Your task to perform on an android device: Open the map Image 0: 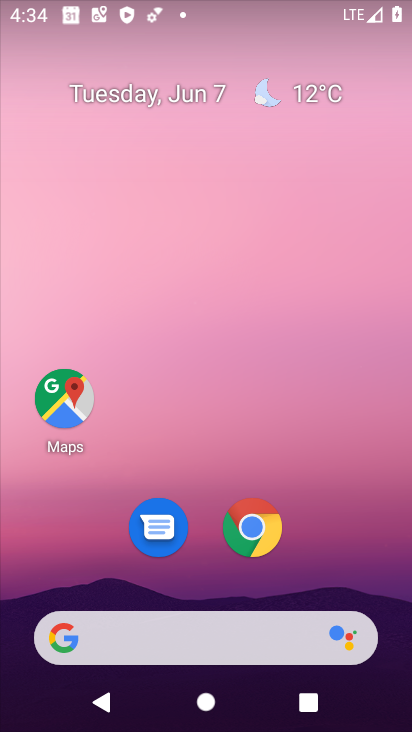
Step 0: click (62, 399)
Your task to perform on an android device: Open the map Image 1: 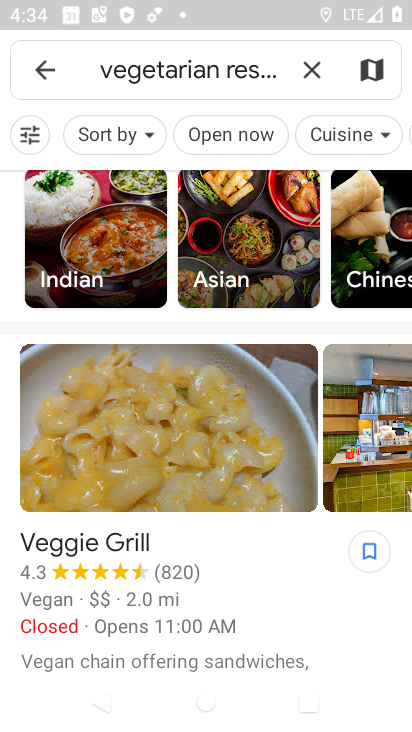
Step 1: click (310, 75)
Your task to perform on an android device: Open the map Image 2: 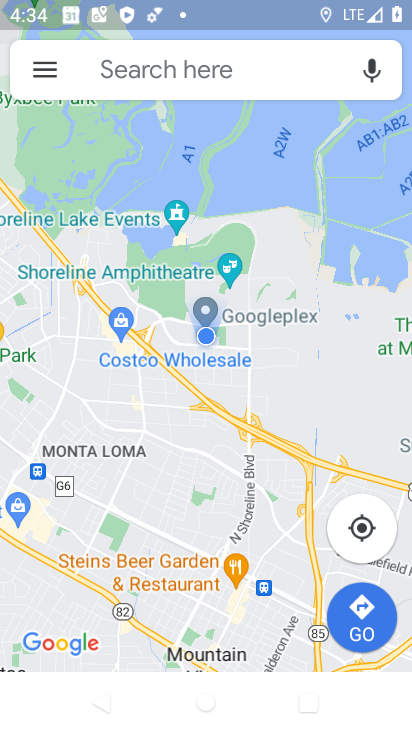
Step 2: task complete